Your task to perform on an android device: Open Amazon Image 0: 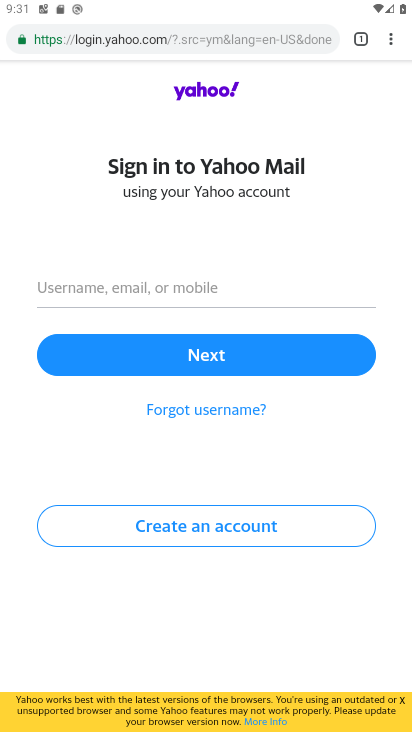
Step 0: press home button
Your task to perform on an android device: Open Amazon Image 1: 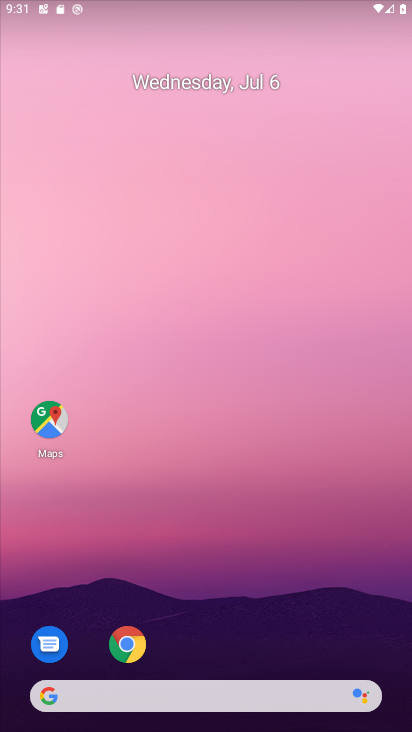
Step 1: drag from (228, 609) to (255, 2)
Your task to perform on an android device: Open Amazon Image 2: 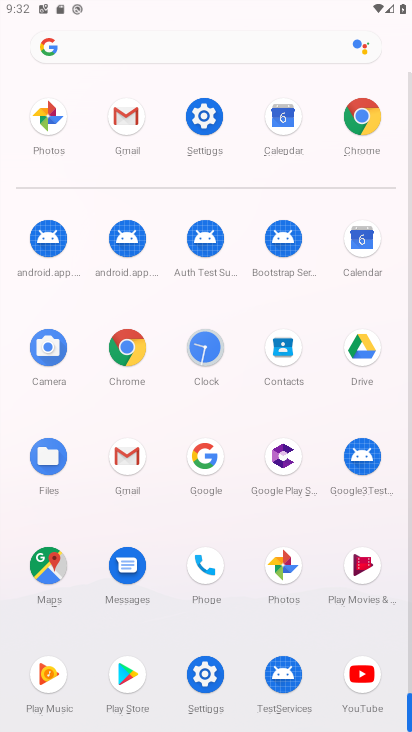
Step 2: click (353, 130)
Your task to perform on an android device: Open Amazon Image 3: 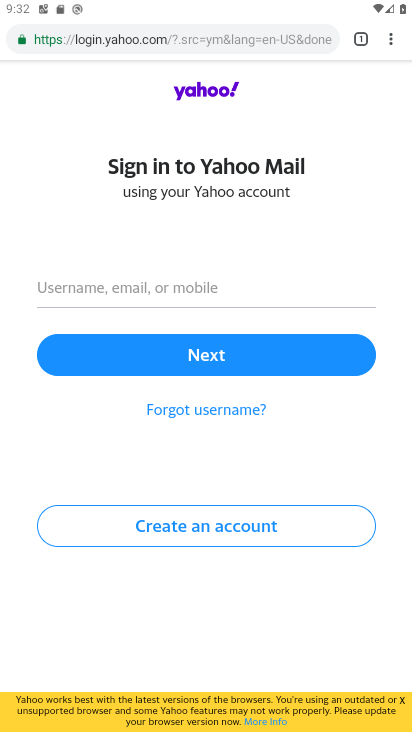
Step 3: click (198, 35)
Your task to perform on an android device: Open Amazon Image 4: 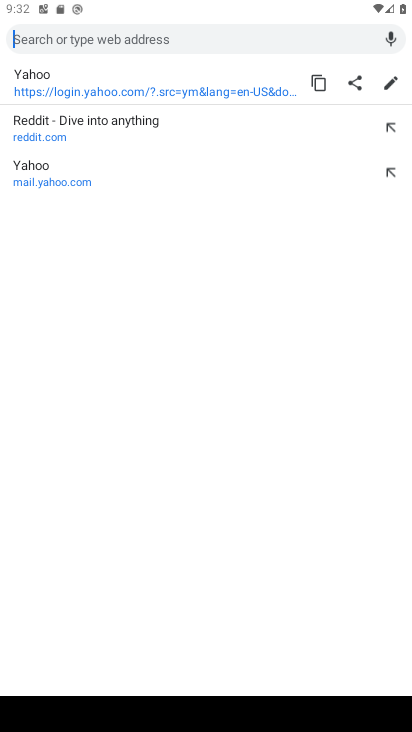
Step 4: type "amazon"
Your task to perform on an android device: Open Amazon Image 5: 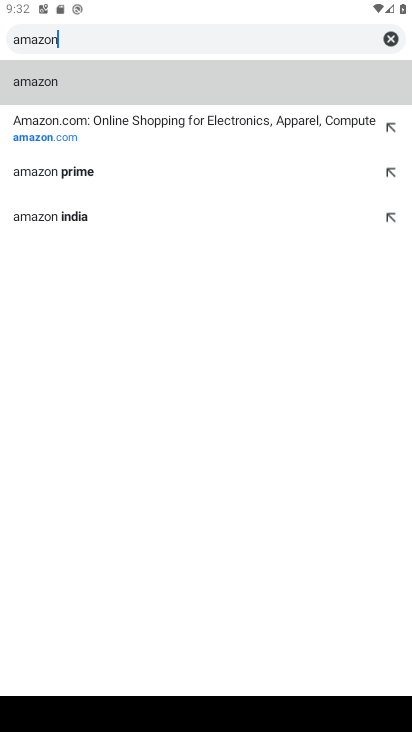
Step 5: click (205, 133)
Your task to perform on an android device: Open Amazon Image 6: 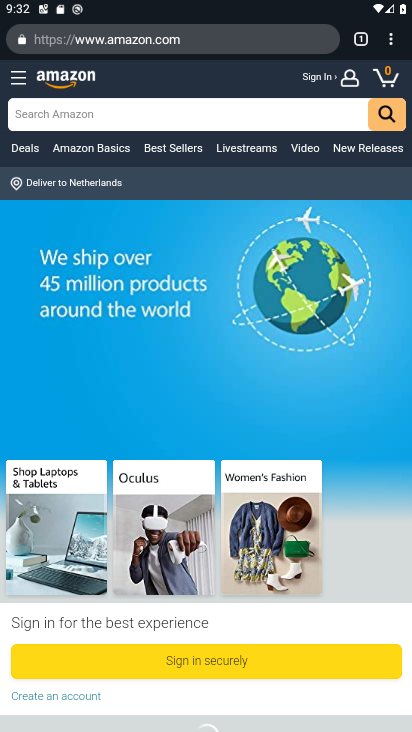
Step 6: task complete